Your task to perform on an android device: change notification settings in the gmail app Image 0: 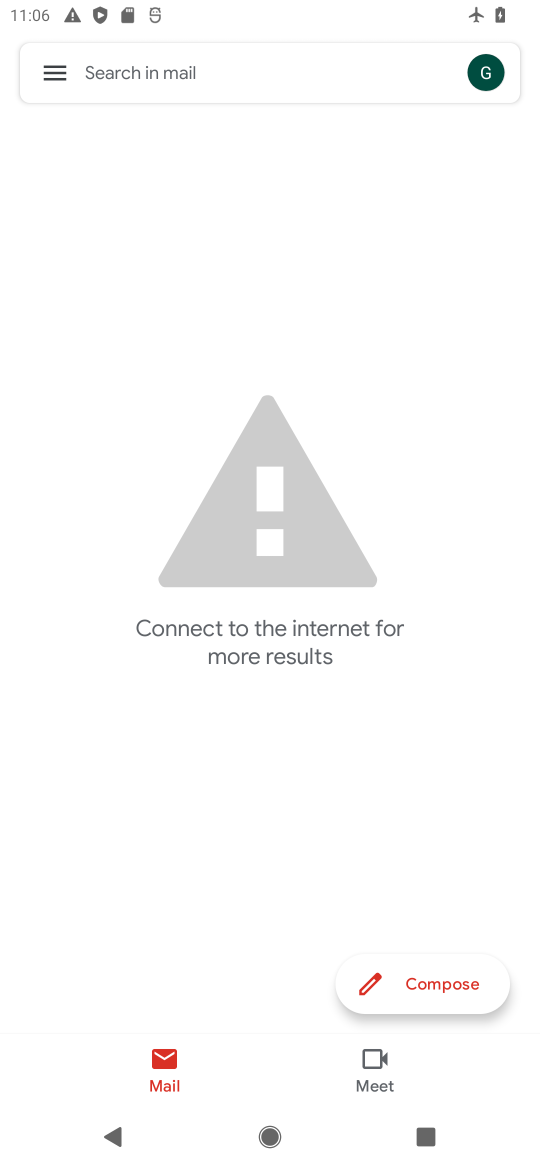
Step 0: press back button
Your task to perform on an android device: change notification settings in the gmail app Image 1: 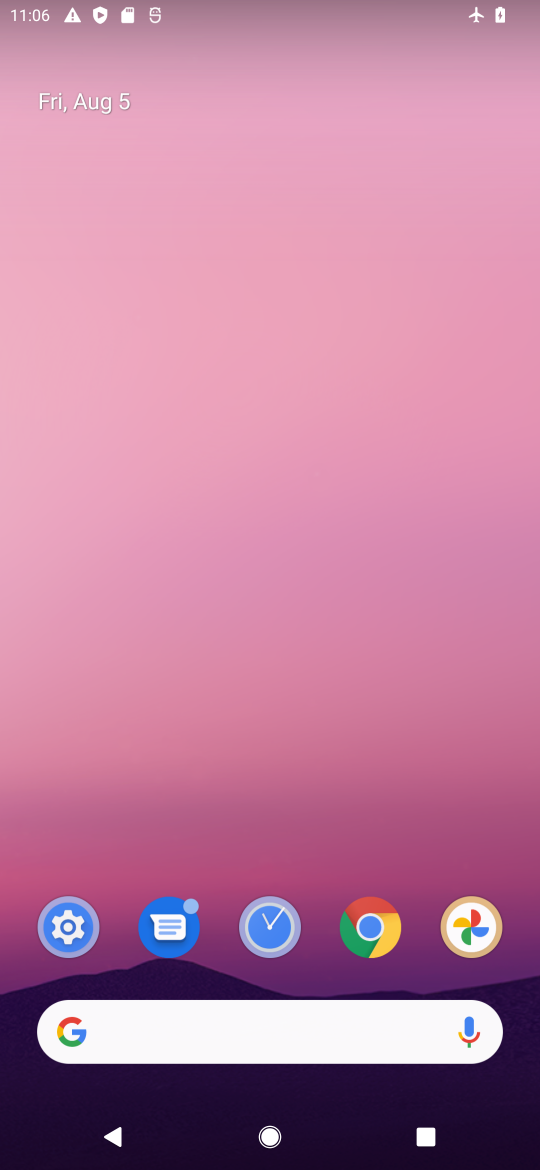
Step 1: press home button
Your task to perform on an android device: change notification settings in the gmail app Image 2: 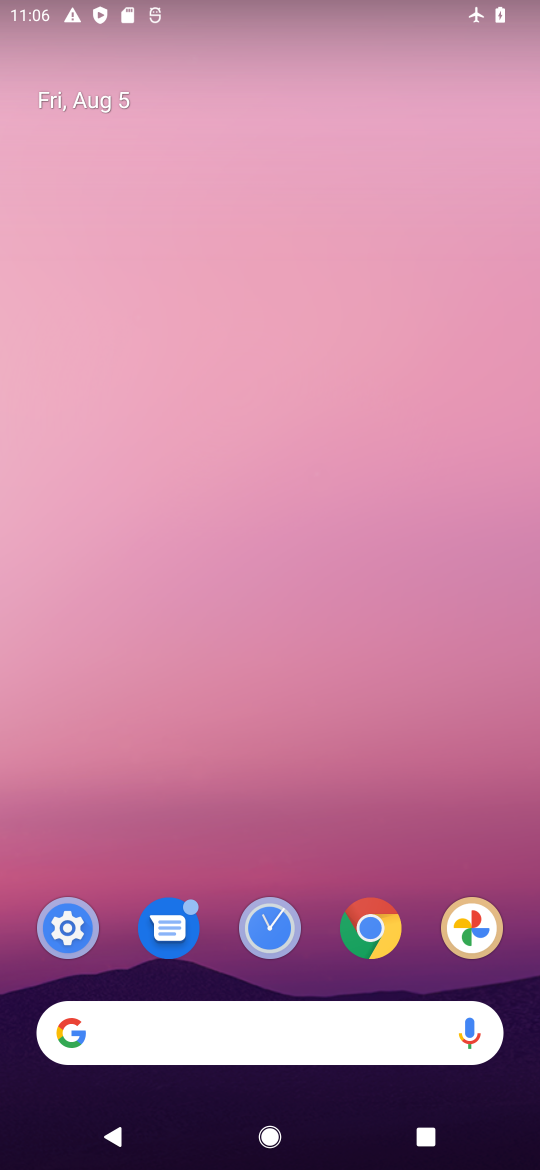
Step 2: drag from (279, 981) to (305, 215)
Your task to perform on an android device: change notification settings in the gmail app Image 3: 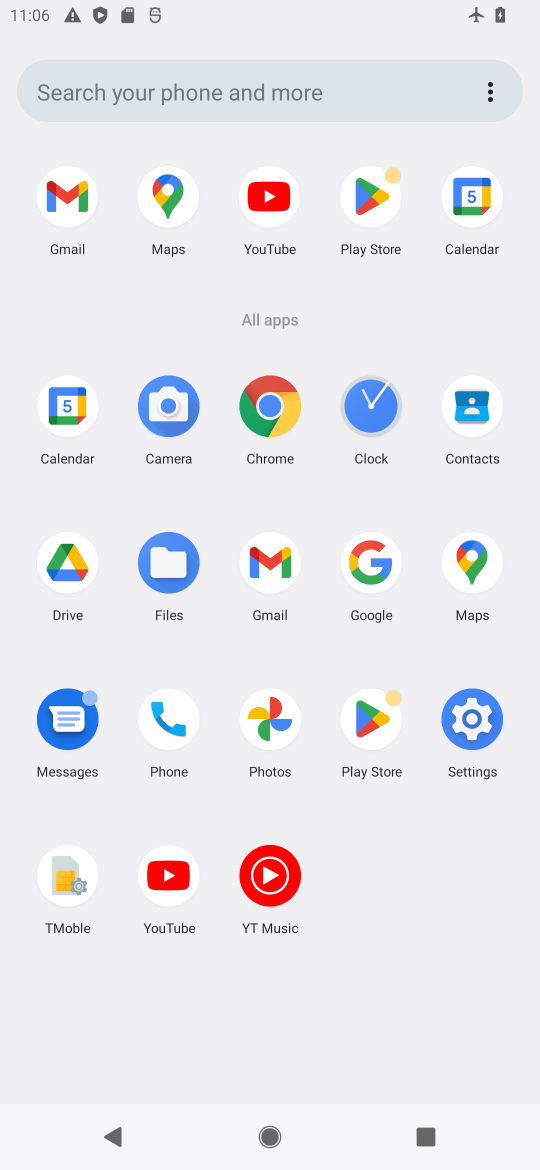
Step 3: click (277, 568)
Your task to perform on an android device: change notification settings in the gmail app Image 4: 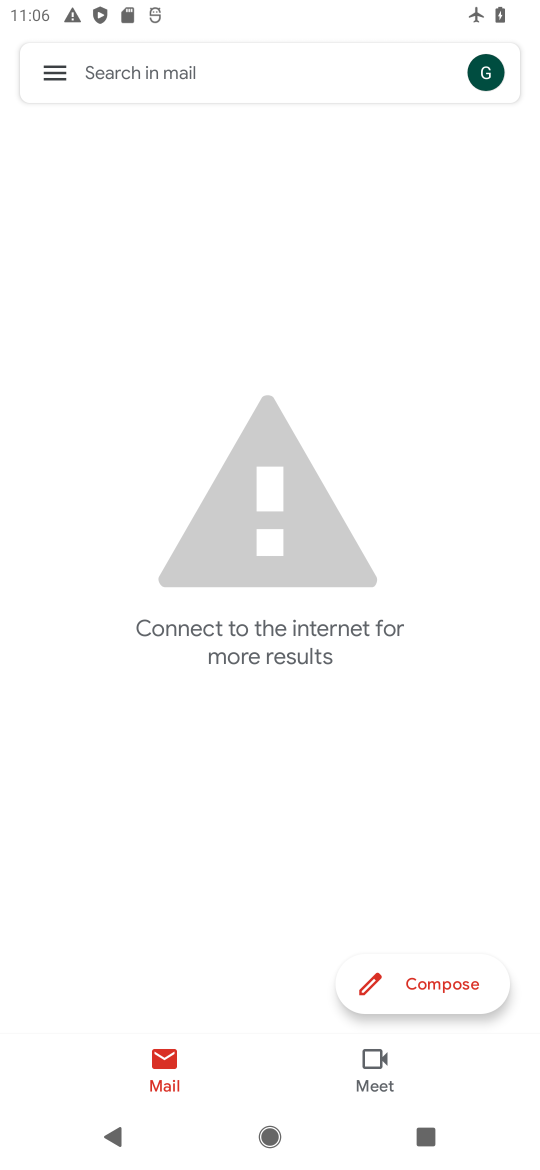
Step 4: click (58, 72)
Your task to perform on an android device: change notification settings in the gmail app Image 5: 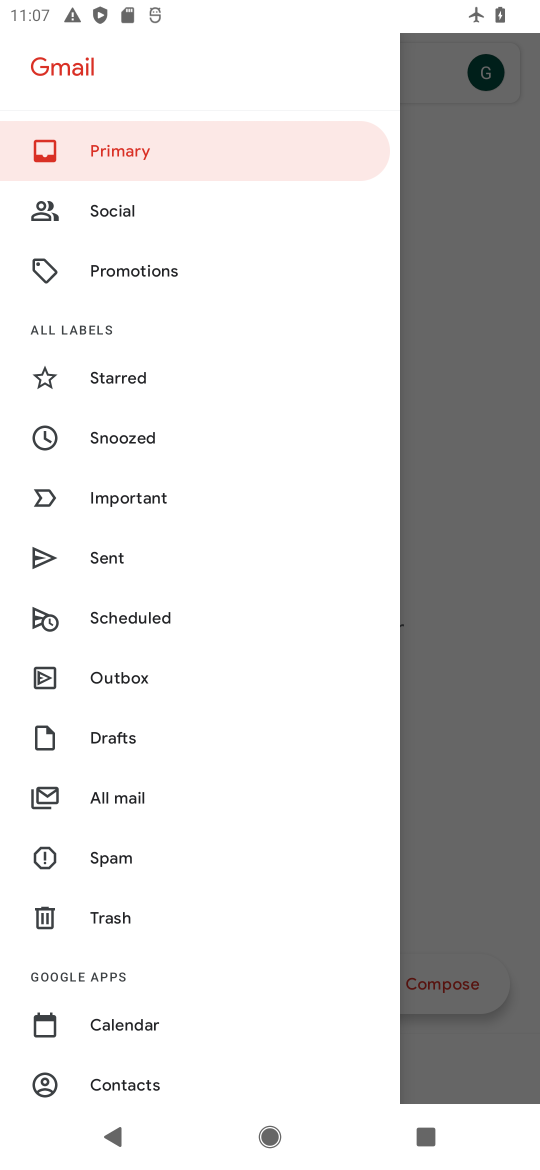
Step 5: drag from (156, 972) to (151, 30)
Your task to perform on an android device: change notification settings in the gmail app Image 6: 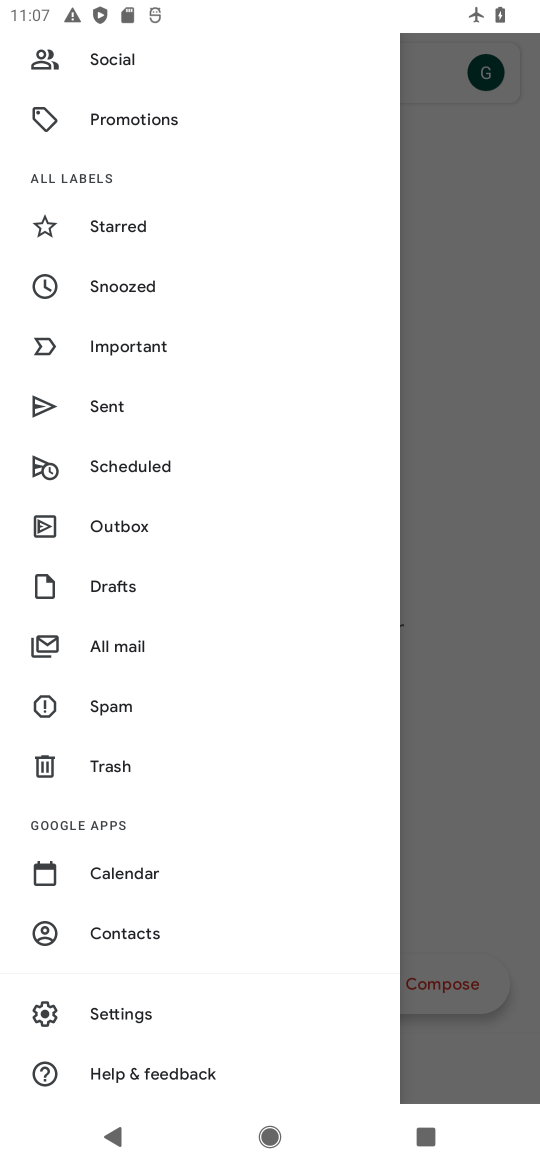
Step 6: click (109, 988)
Your task to perform on an android device: change notification settings in the gmail app Image 7: 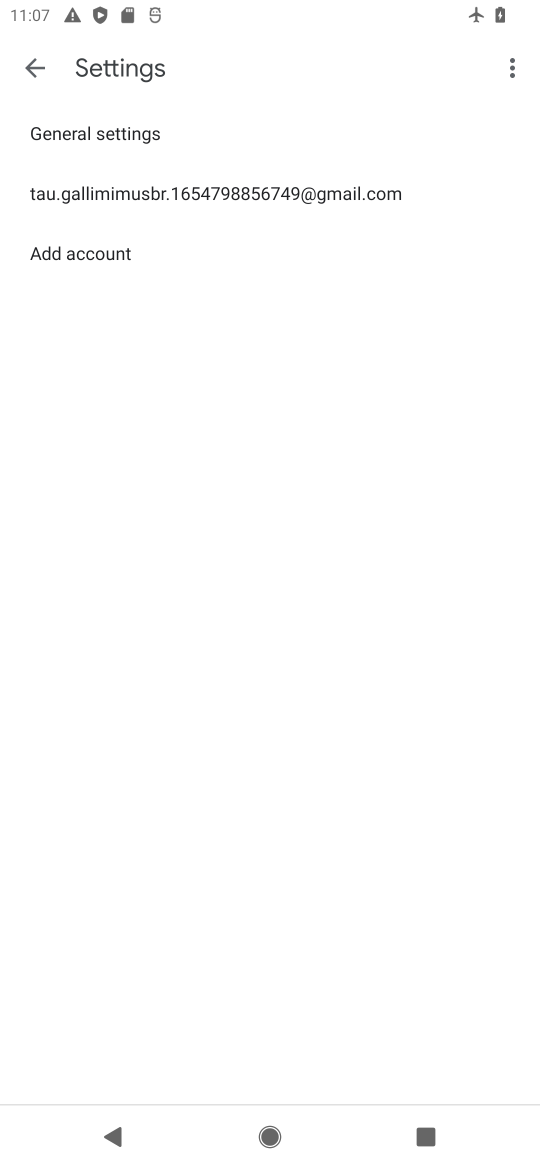
Step 7: click (76, 135)
Your task to perform on an android device: change notification settings in the gmail app Image 8: 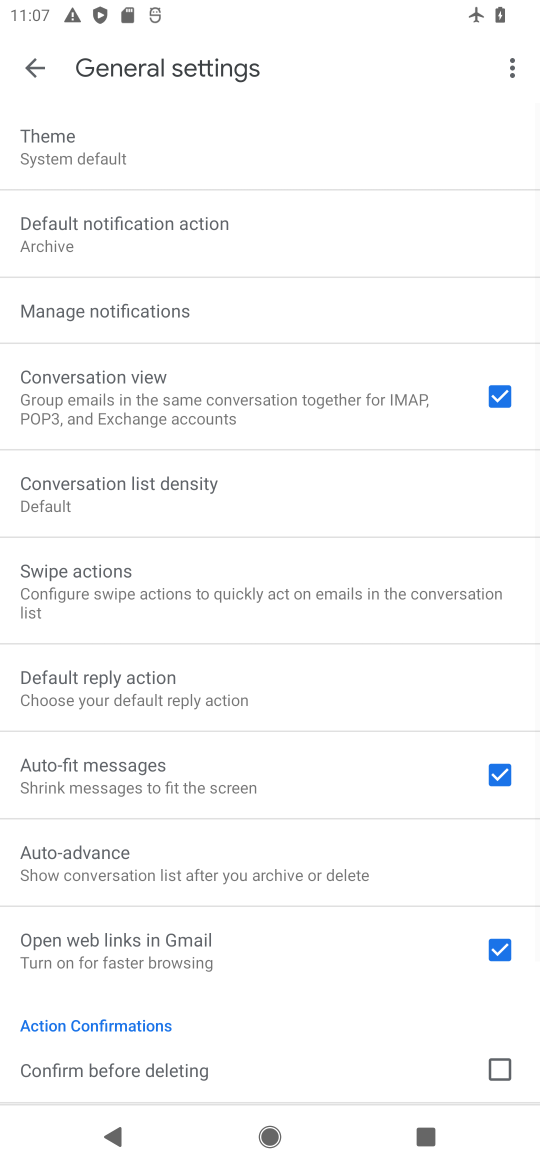
Step 8: click (88, 297)
Your task to perform on an android device: change notification settings in the gmail app Image 9: 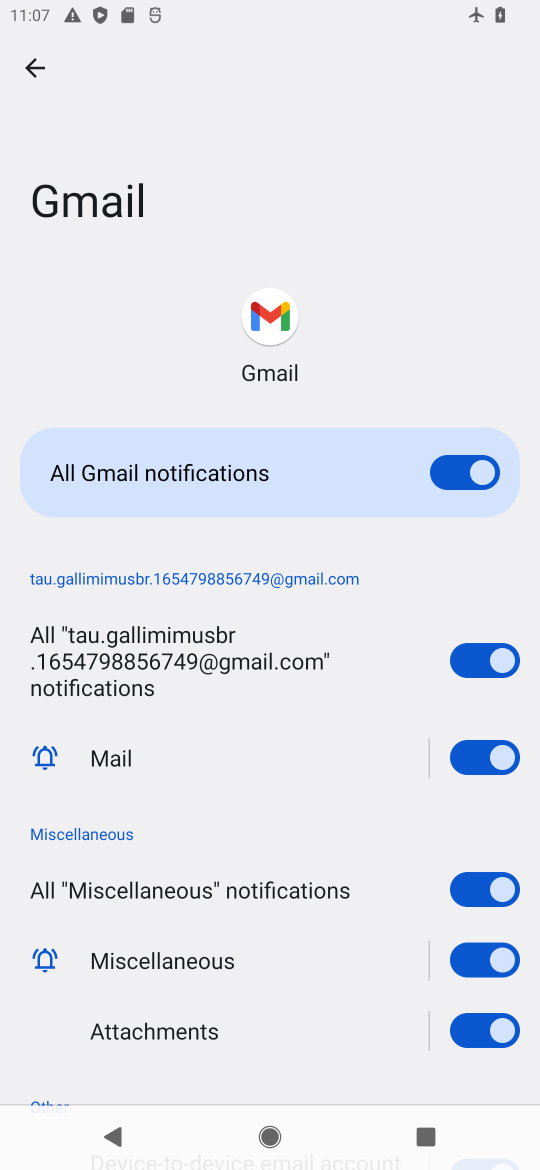
Step 9: click (479, 476)
Your task to perform on an android device: change notification settings in the gmail app Image 10: 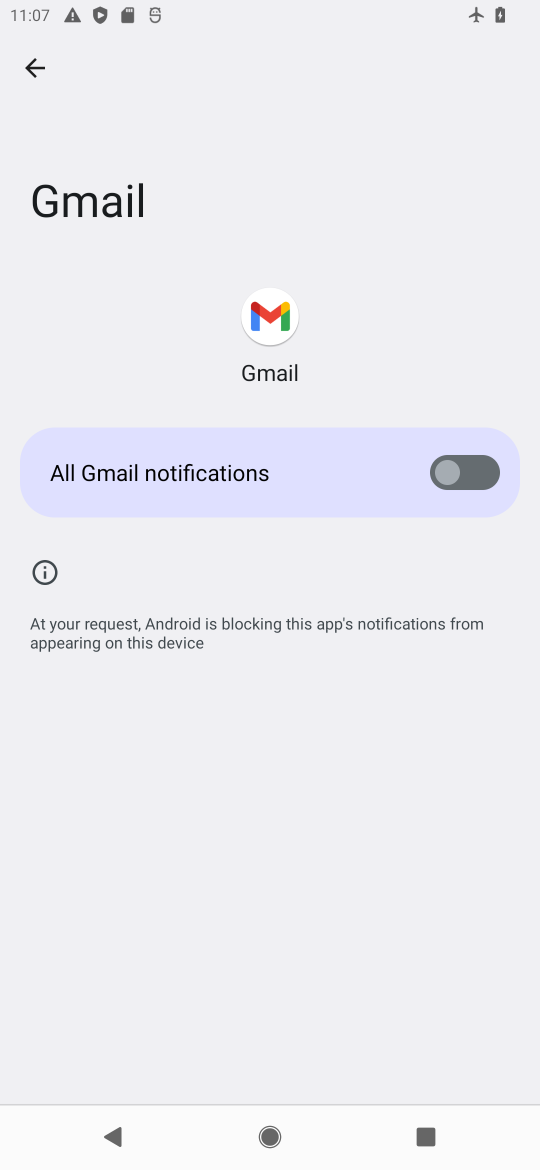
Step 10: task complete